Your task to perform on an android device: Show me popular videos on Youtube Image 0: 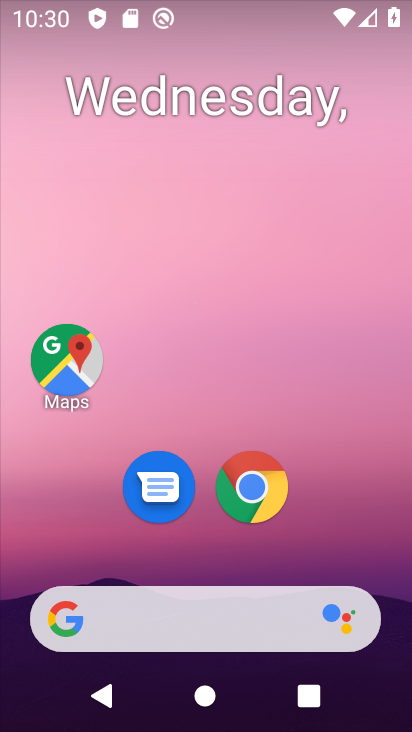
Step 0: drag from (325, 553) to (351, 134)
Your task to perform on an android device: Show me popular videos on Youtube Image 1: 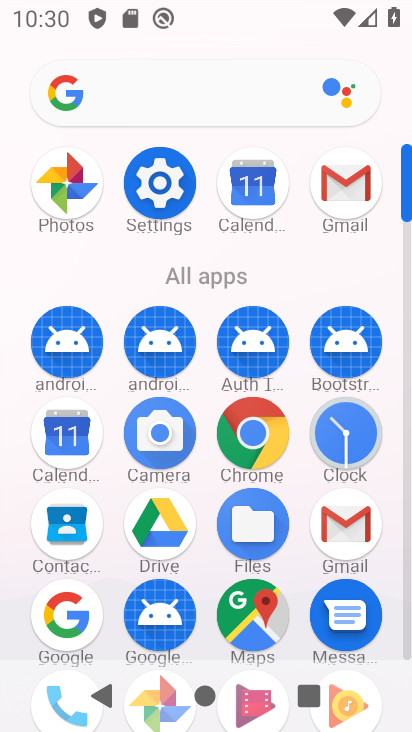
Step 1: drag from (305, 581) to (334, 190)
Your task to perform on an android device: Show me popular videos on Youtube Image 2: 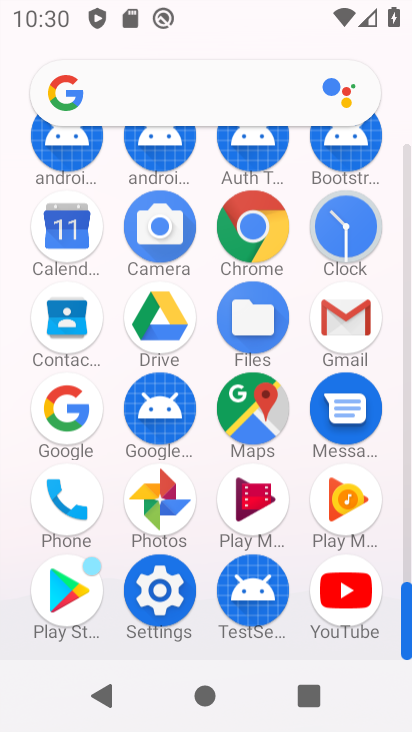
Step 2: click (340, 605)
Your task to perform on an android device: Show me popular videos on Youtube Image 3: 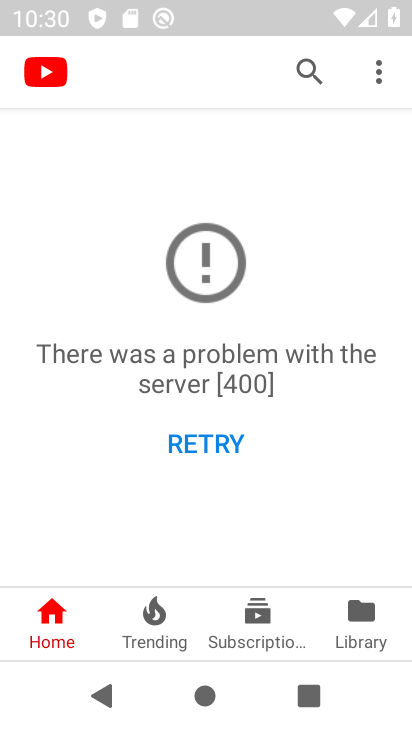
Step 3: click (155, 625)
Your task to perform on an android device: Show me popular videos on Youtube Image 4: 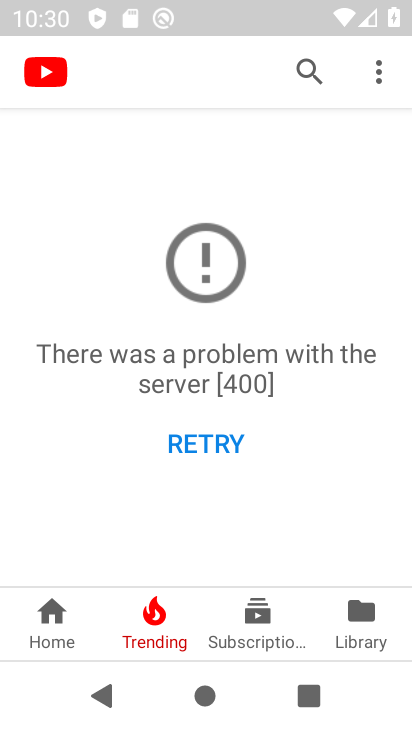
Step 4: task complete